Your task to perform on an android device: delete the emails in spam in the gmail app Image 0: 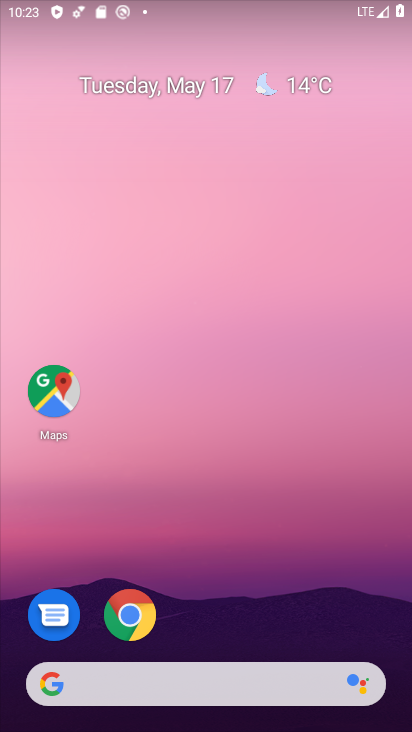
Step 0: drag from (215, 686) to (291, 145)
Your task to perform on an android device: delete the emails in spam in the gmail app Image 1: 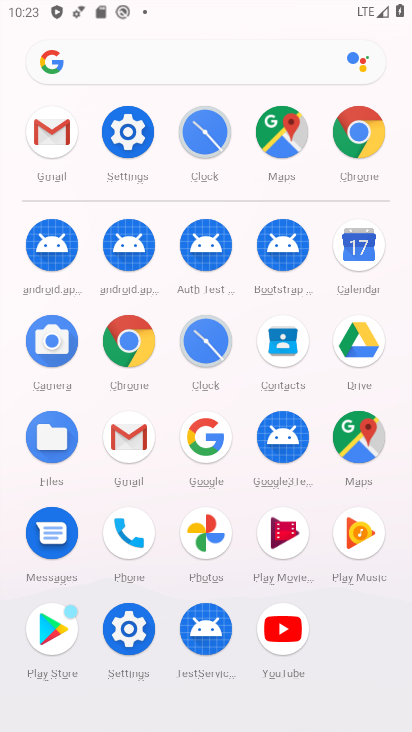
Step 1: click (43, 146)
Your task to perform on an android device: delete the emails in spam in the gmail app Image 2: 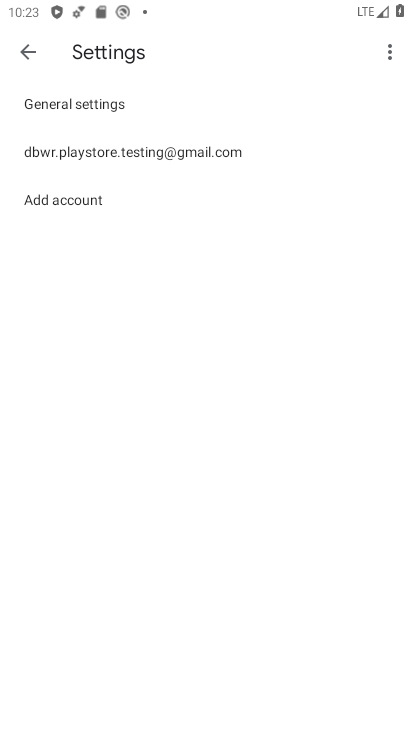
Step 2: click (35, 48)
Your task to perform on an android device: delete the emails in spam in the gmail app Image 3: 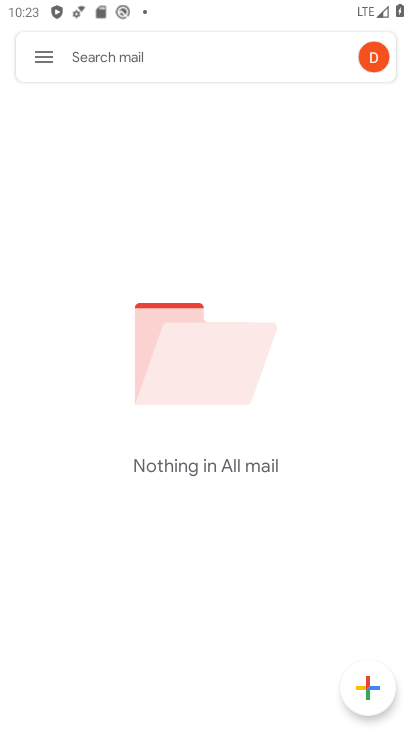
Step 3: click (47, 56)
Your task to perform on an android device: delete the emails in spam in the gmail app Image 4: 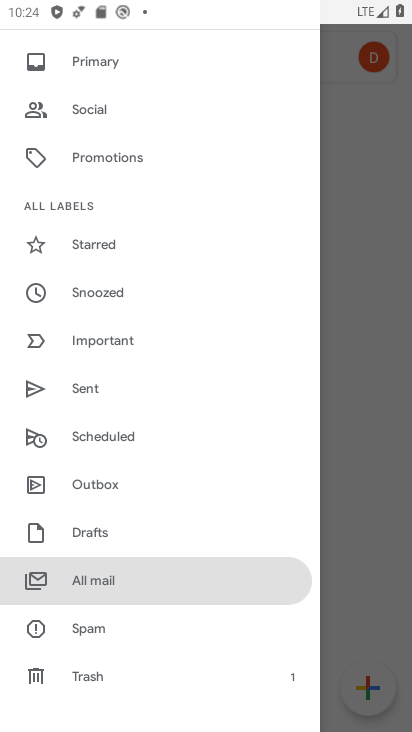
Step 4: click (107, 624)
Your task to perform on an android device: delete the emails in spam in the gmail app Image 5: 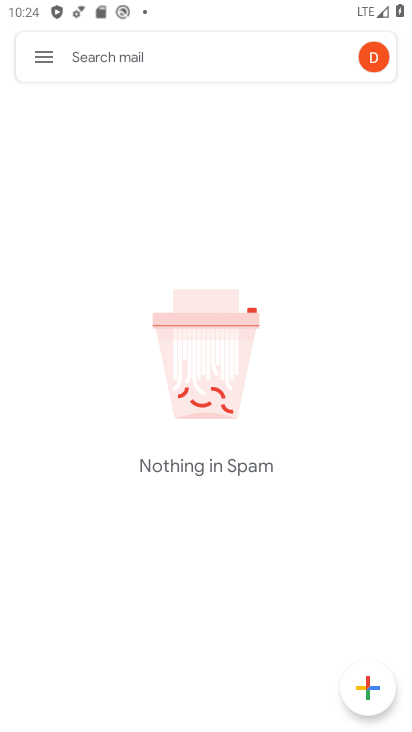
Step 5: task complete